Your task to perform on an android device: Open location settings Image 0: 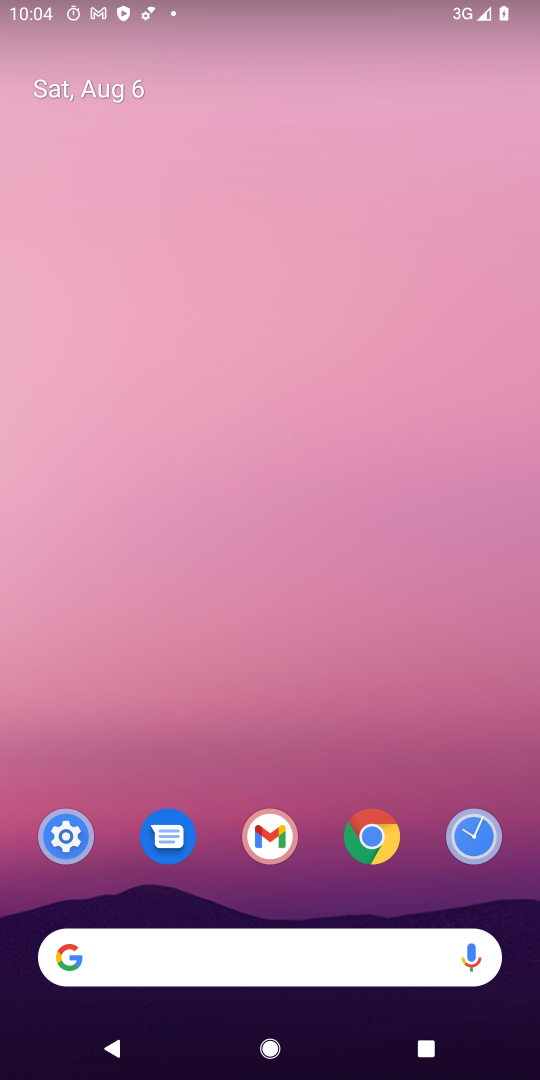
Step 0: drag from (426, 898) to (312, 92)
Your task to perform on an android device: Open location settings Image 1: 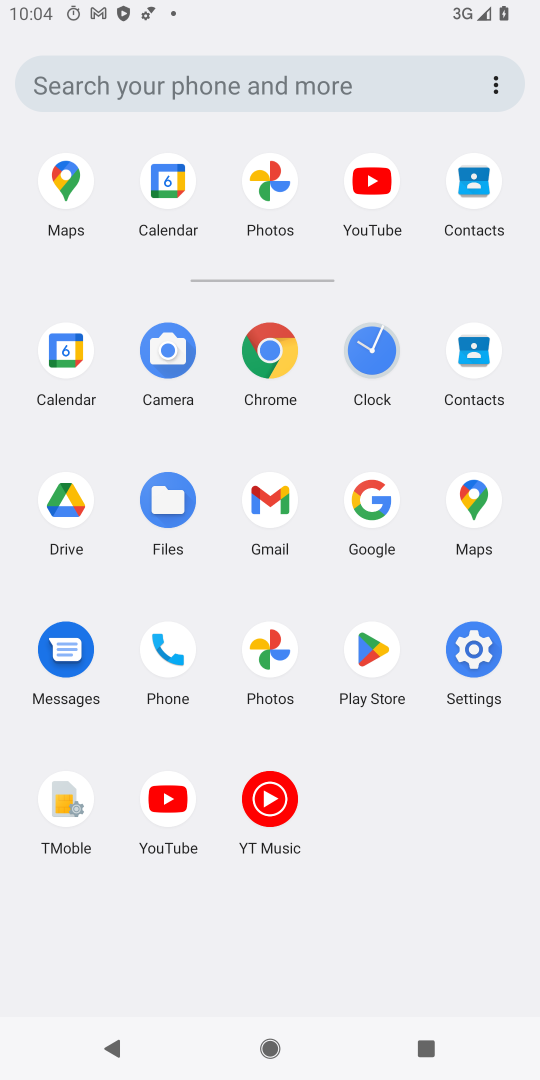
Step 1: click (475, 641)
Your task to perform on an android device: Open location settings Image 2: 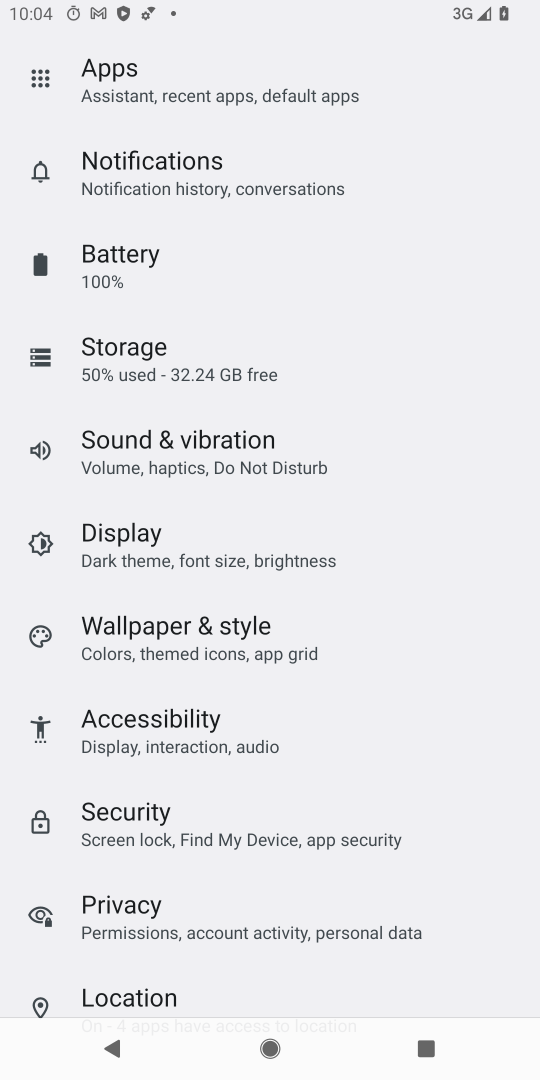
Step 2: click (127, 999)
Your task to perform on an android device: Open location settings Image 3: 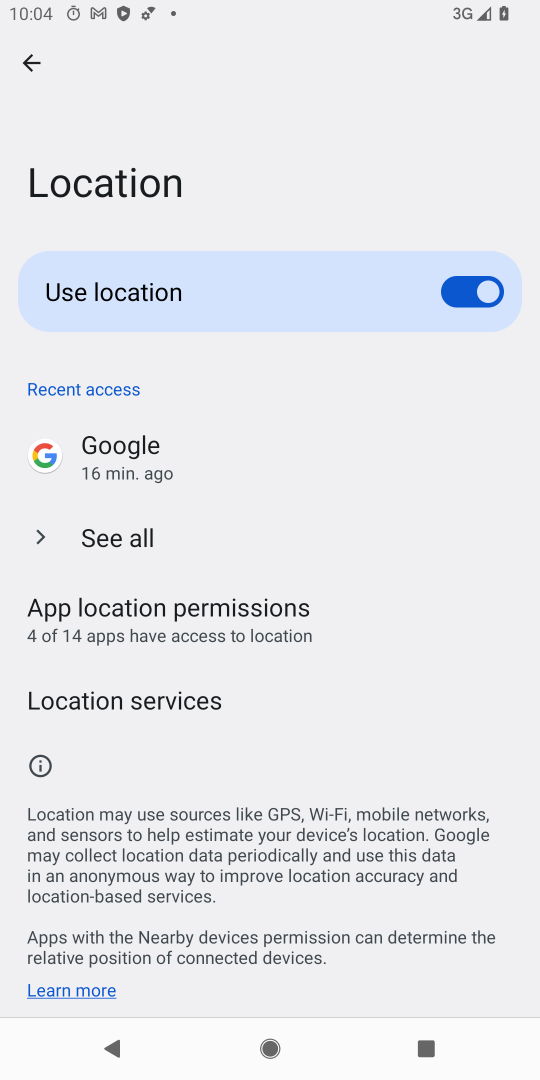
Step 3: task complete